Your task to perform on an android device: turn off wifi Image 0: 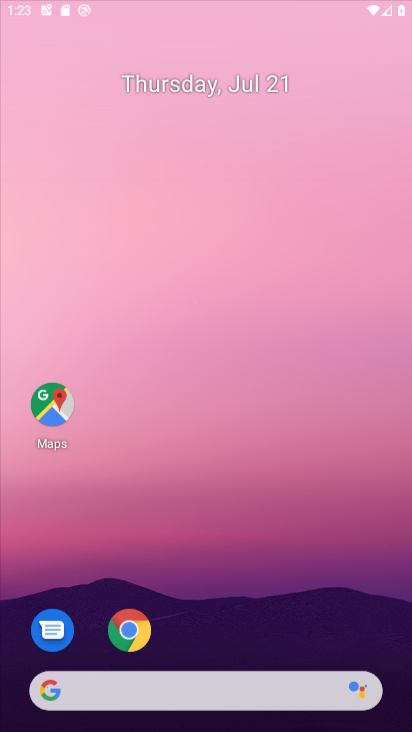
Step 0: press home button
Your task to perform on an android device: turn off wifi Image 1: 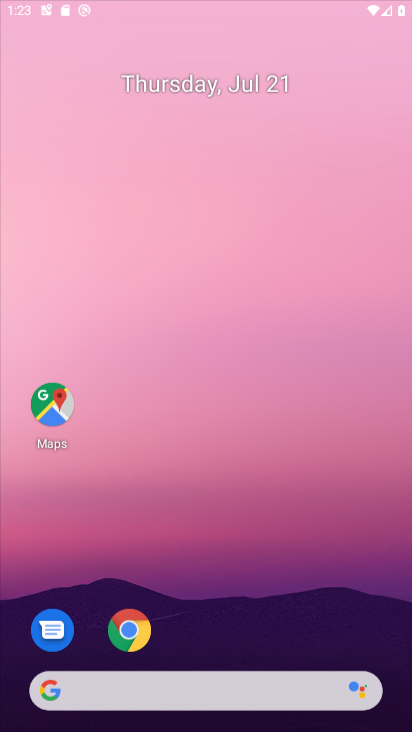
Step 1: click (280, 47)
Your task to perform on an android device: turn off wifi Image 2: 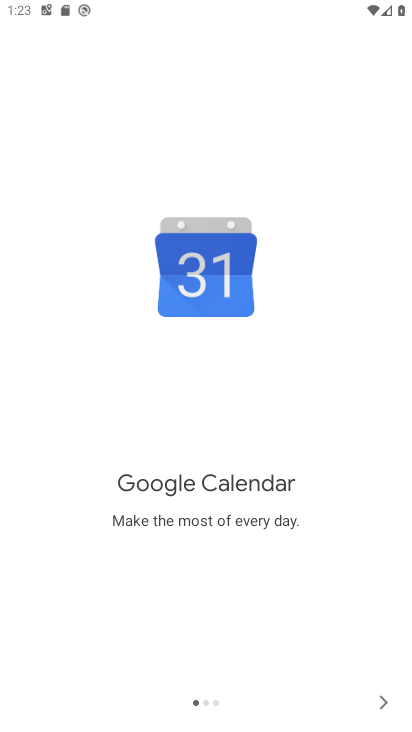
Step 2: click (393, 704)
Your task to perform on an android device: turn off wifi Image 3: 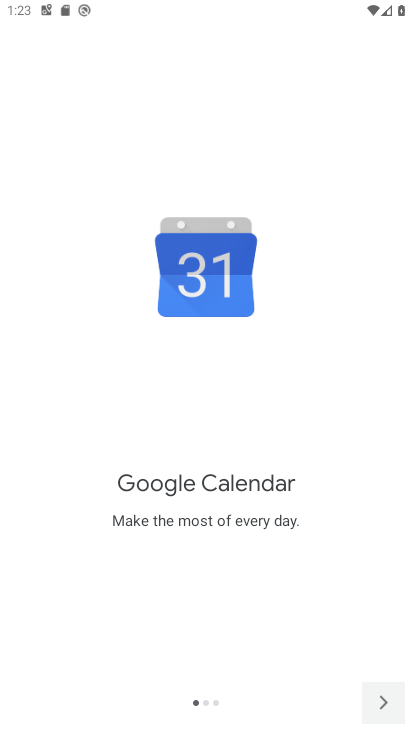
Step 3: click (393, 704)
Your task to perform on an android device: turn off wifi Image 4: 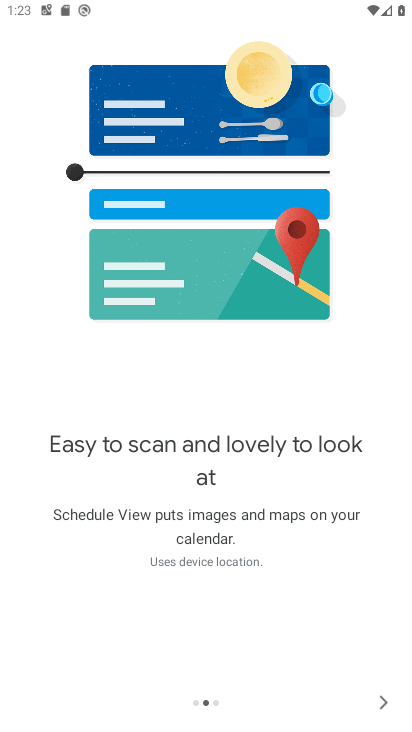
Step 4: click (393, 704)
Your task to perform on an android device: turn off wifi Image 5: 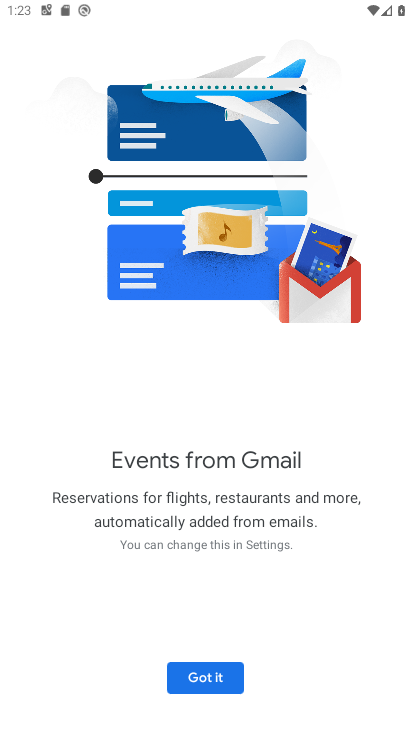
Step 5: click (179, 688)
Your task to perform on an android device: turn off wifi Image 6: 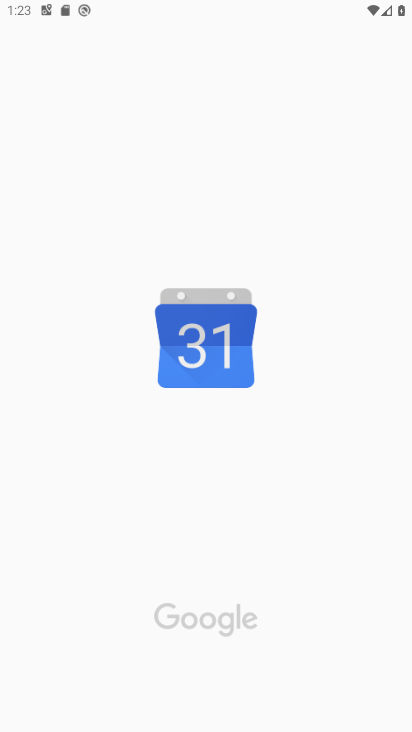
Step 6: press home button
Your task to perform on an android device: turn off wifi Image 7: 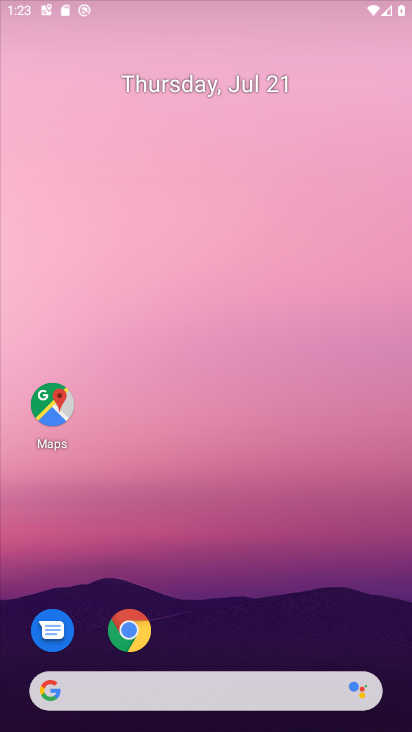
Step 7: drag from (398, 5) to (283, 554)
Your task to perform on an android device: turn off wifi Image 8: 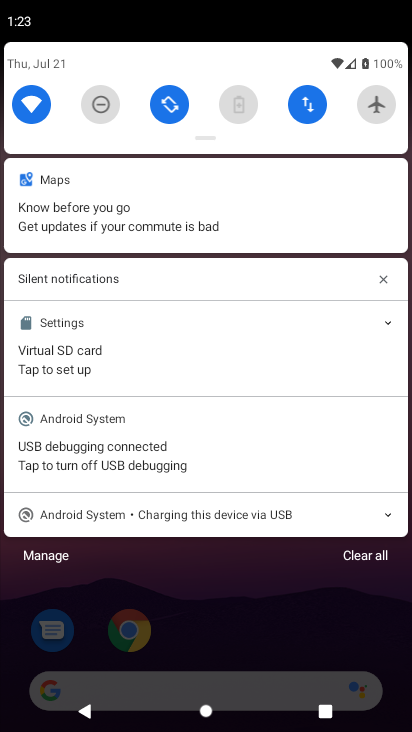
Step 8: click (21, 123)
Your task to perform on an android device: turn off wifi Image 9: 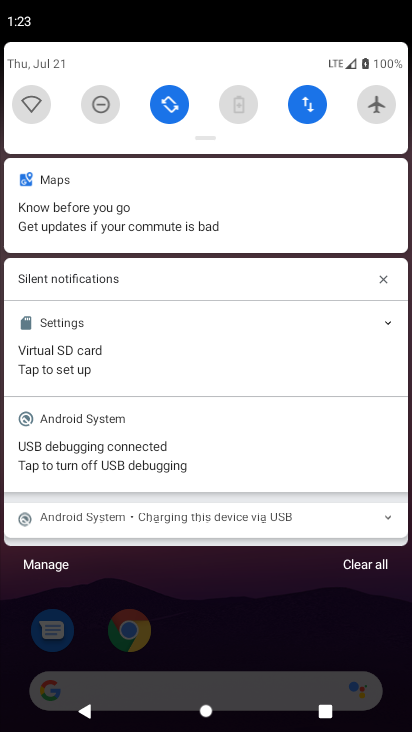
Step 9: task complete